Your task to perform on an android device: turn on the 12-hour format for clock Image 0: 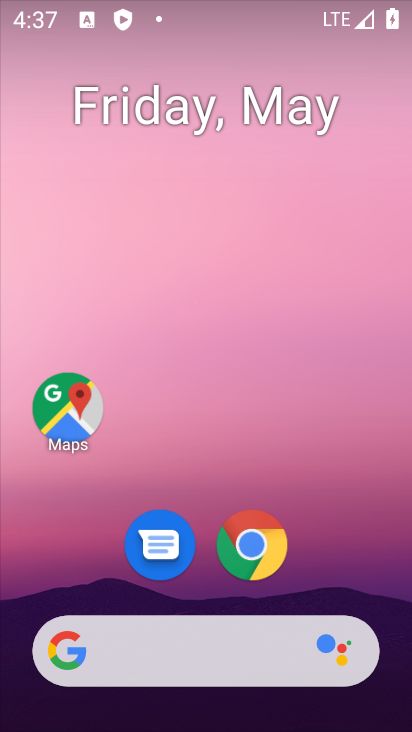
Step 0: drag from (336, 583) to (331, 144)
Your task to perform on an android device: turn on the 12-hour format for clock Image 1: 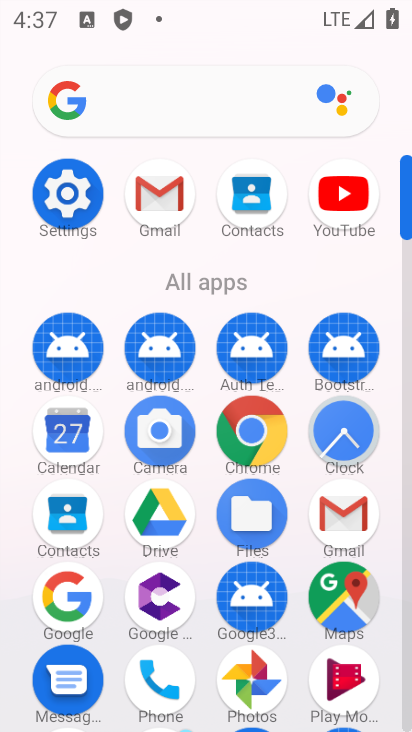
Step 1: click (331, 439)
Your task to perform on an android device: turn on the 12-hour format for clock Image 2: 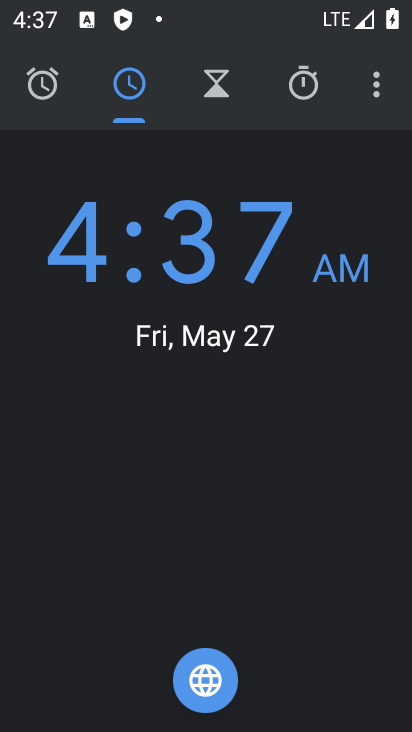
Step 2: click (369, 106)
Your task to perform on an android device: turn on the 12-hour format for clock Image 3: 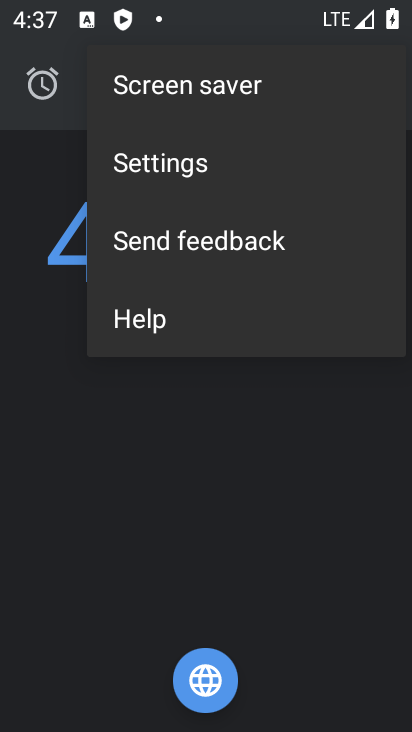
Step 3: click (230, 148)
Your task to perform on an android device: turn on the 12-hour format for clock Image 4: 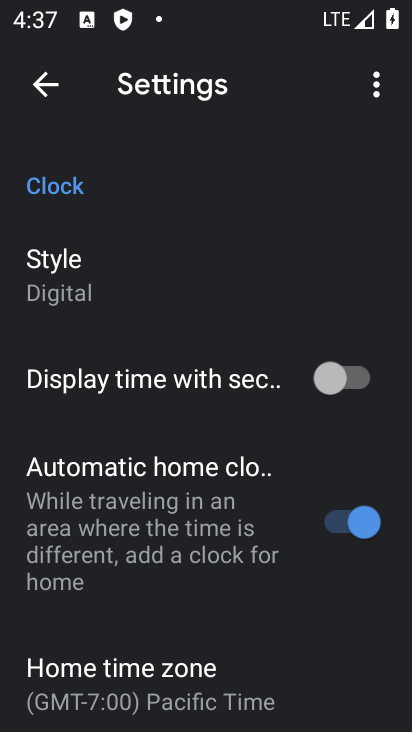
Step 4: drag from (290, 654) to (245, 152)
Your task to perform on an android device: turn on the 12-hour format for clock Image 5: 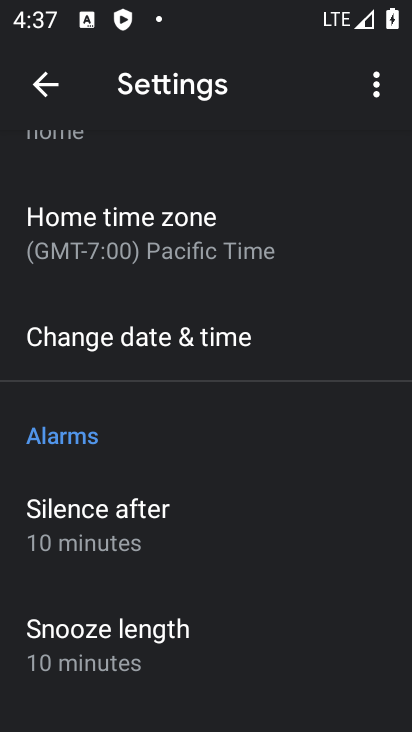
Step 5: click (187, 356)
Your task to perform on an android device: turn on the 12-hour format for clock Image 6: 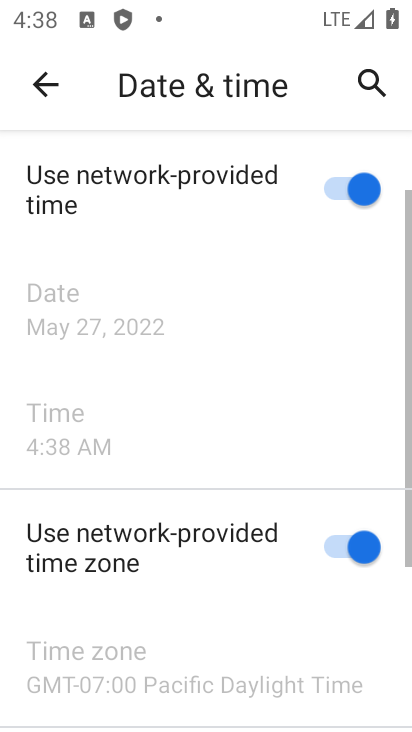
Step 6: task complete